Your task to perform on an android device: Open ESPN.com Image 0: 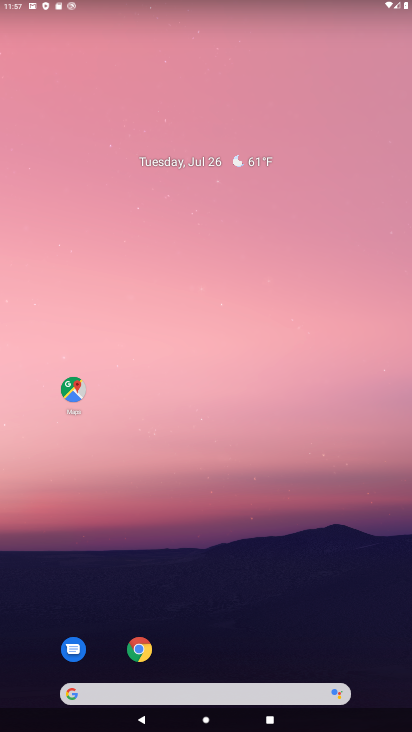
Step 0: click (149, 651)
Your task to perform on an android device: Open ESPN.com Image 1: 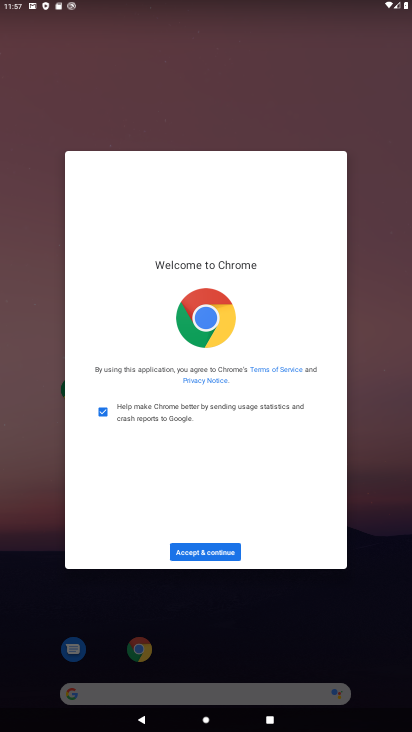
Step 1: click (211, 553)
Your task to perform on an android device: Open ESPN.com Image 2: 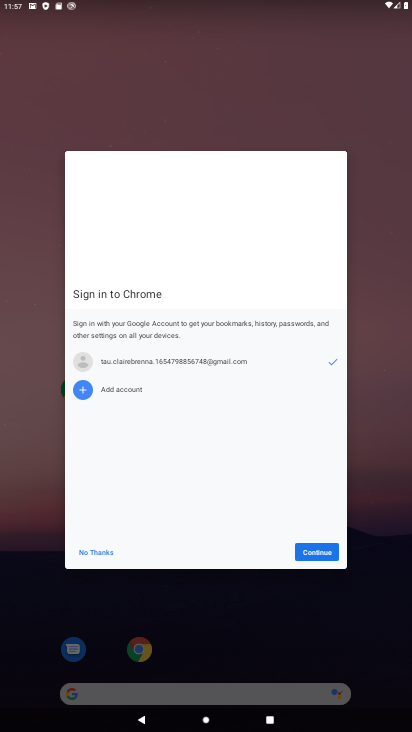
Step 2: click (317, 554)
Your task to perform on an android device: Open ESPN.com Image 3: 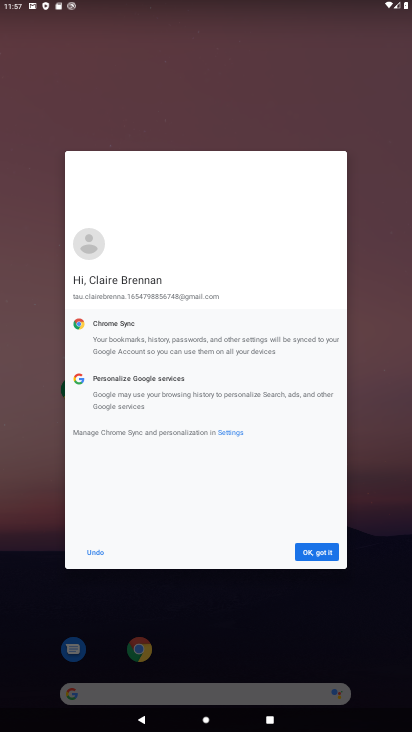
Step 3: click (317, 553)
Your task to perform on an android device: Open ESPN.com Image 4: 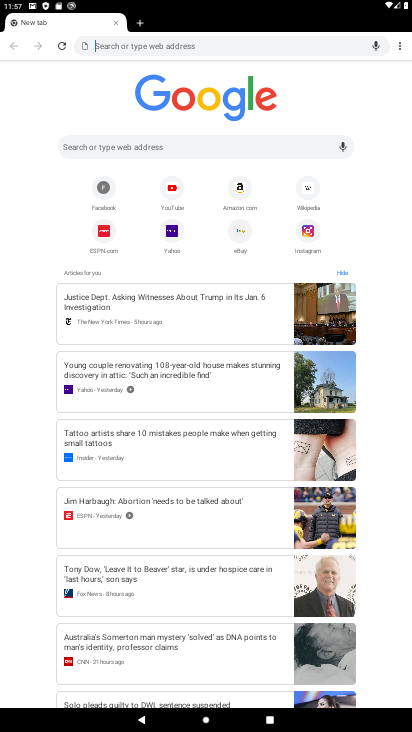
Step 4: click (103, 235)
Your task to perform on an android device: Open ESPN.com Image 5: 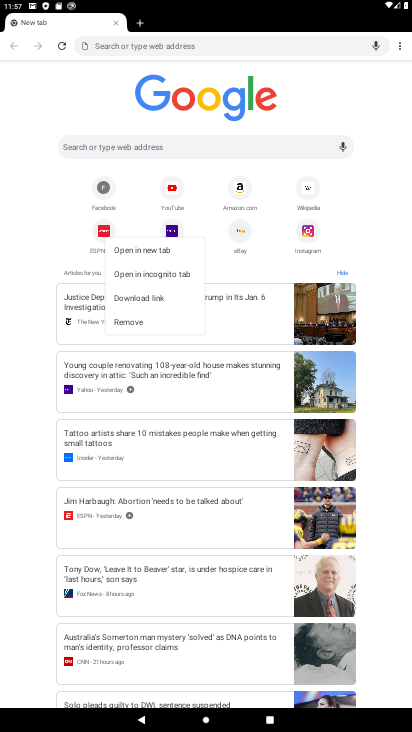
Step 5: click (103, 235)
Your task to perform on an android device: Open ESPN.com Image 6: 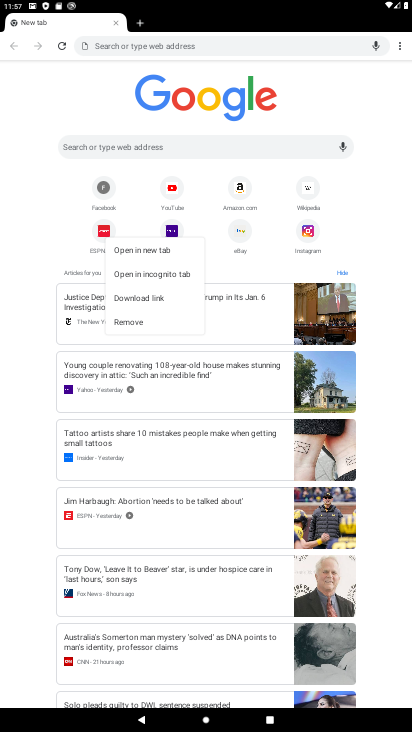
Step 6: click (103, 235)
Your task to perform on an android device: Open ESPN.com Image 7: 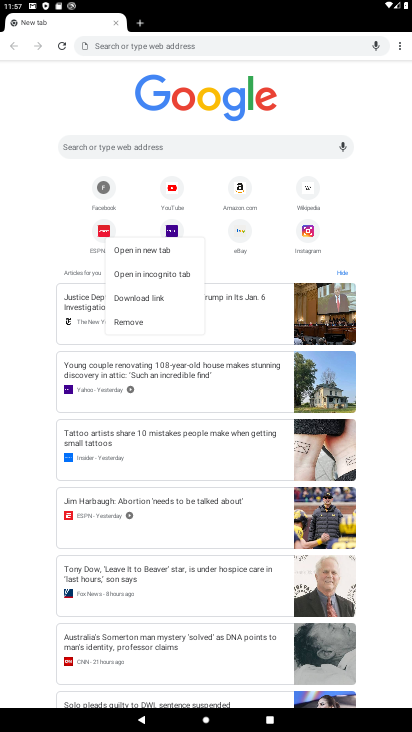
Step 7: click (102, 230)
Your task to perform on an android device: Open ESPN.com Image 8: 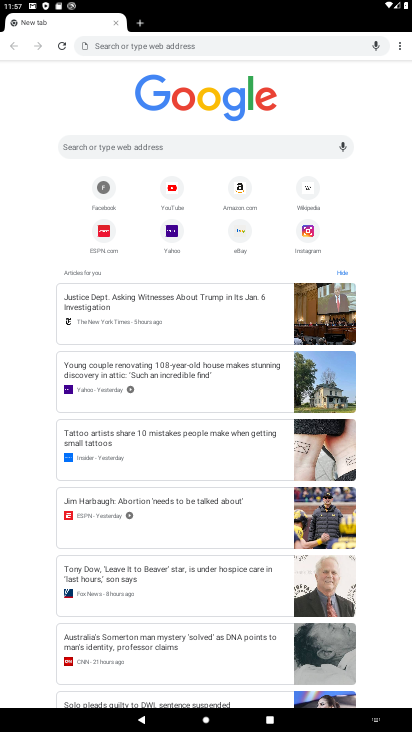
Step 8: click (103, 232)
Your task to perform on an android device: Open ESPN.com Image 9: 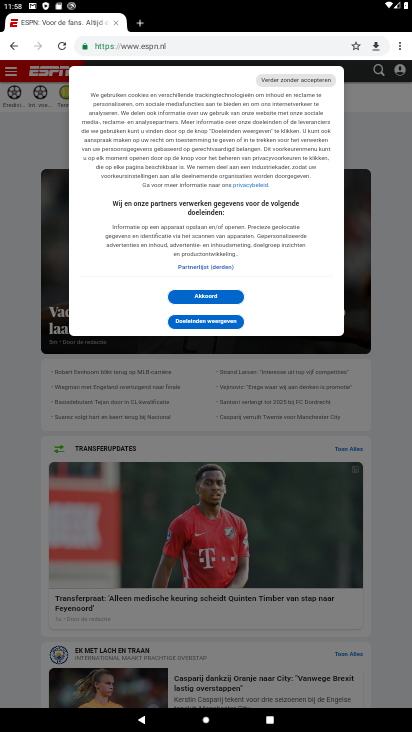
Step 9: task complete